Your task to perform on an android device: What is the news today? Image 0: 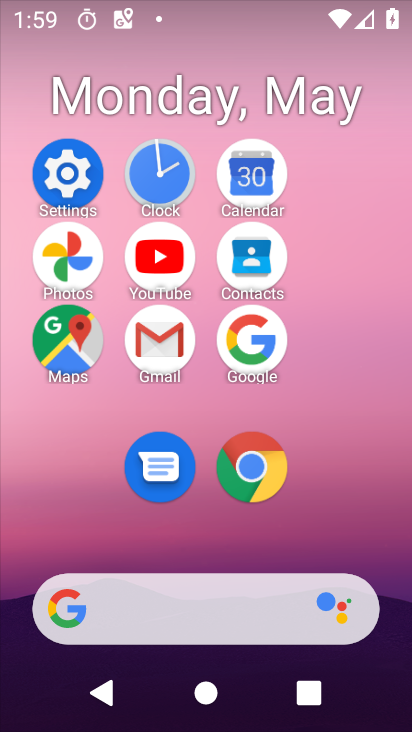
Step 0: click (251, 336)
Your task to perform on an android device: What is the news today? Image 1: 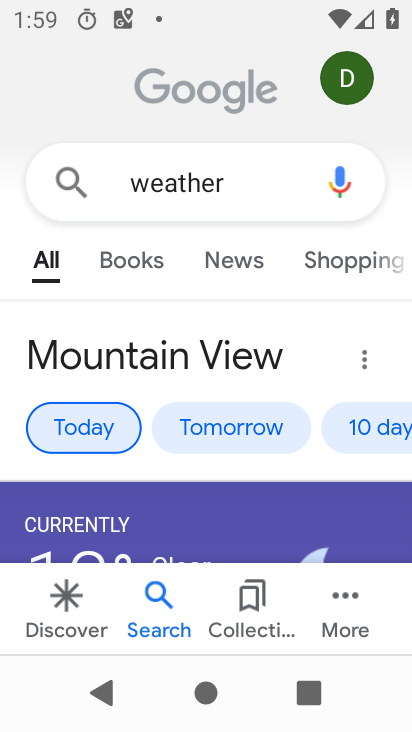
Step 1: click (250, 181)
Your task to perform on an android device: What is the news today? Image 2: 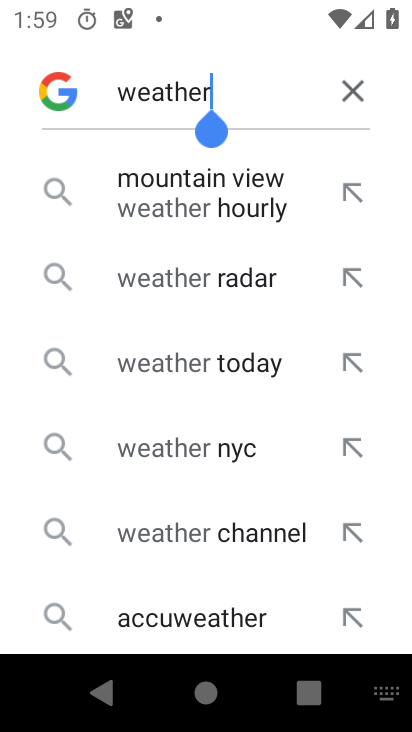
Step 2: click (344, 99)
Your task to perform on an android device: What is the news today? Image 3: 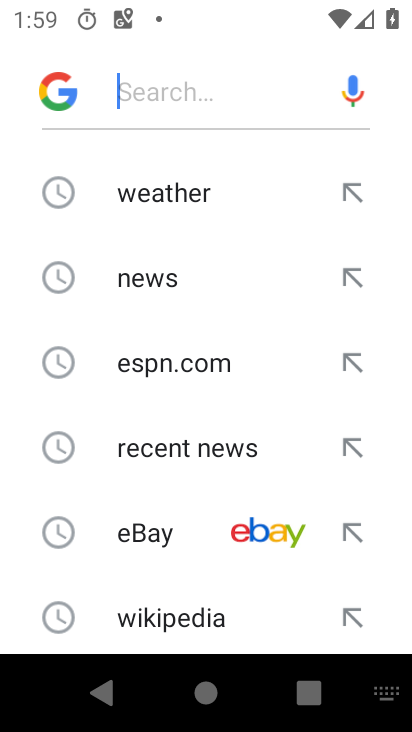
Step 3: click (196, 272)
Your task to perform on an android device: What is the news today? Image 4: 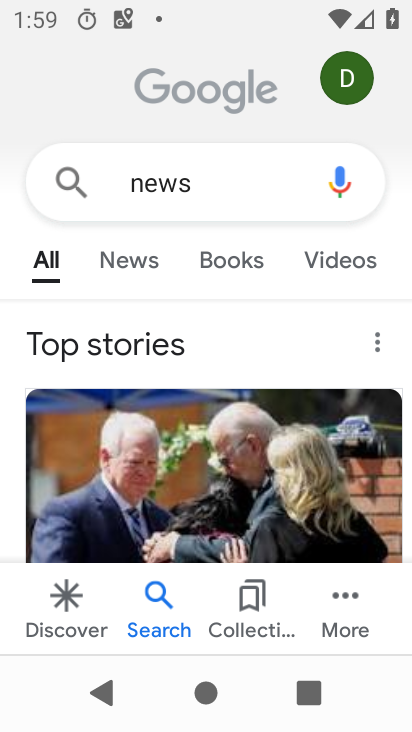
Step 4: task complete